Your task to perform on an android device: Open display settings Image 0: 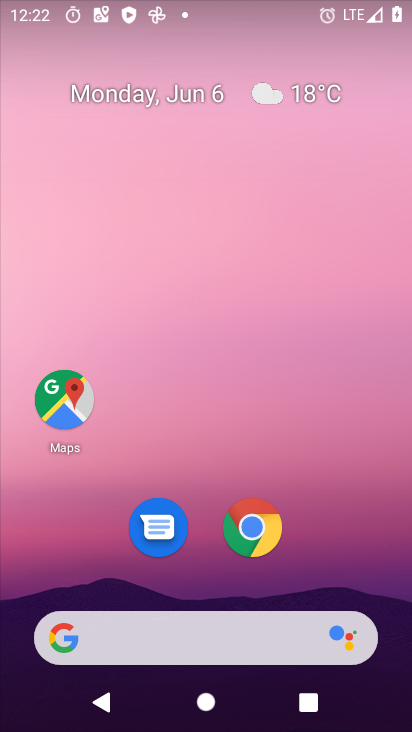
Step 0: drag from (327, 460) to (237, 22)
Your task to perform on an android device: Open display settings Image 1: 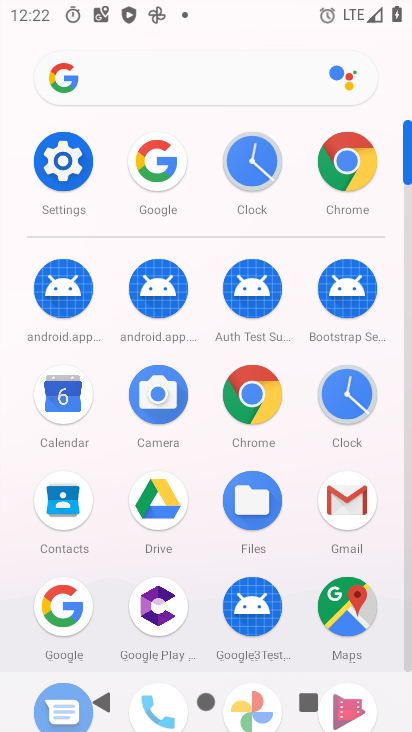
Step 1: click (70, 152)
Your task to perform on an android device: Open display settings Image 2: 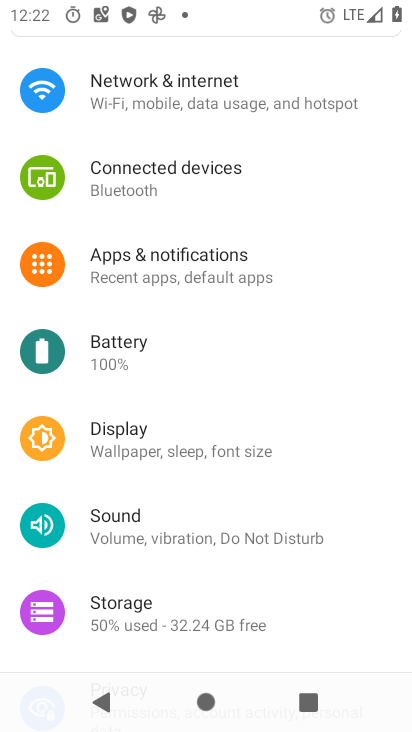
Step 2: click (180, 439)
Your task to perform on an android device: Open display settings Image 3: 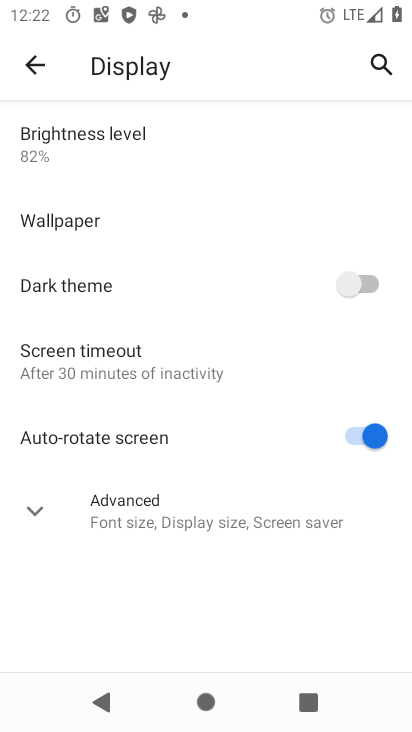
Step 3: task complete